Your task to perform on an android device: Open the web browser Image 0: 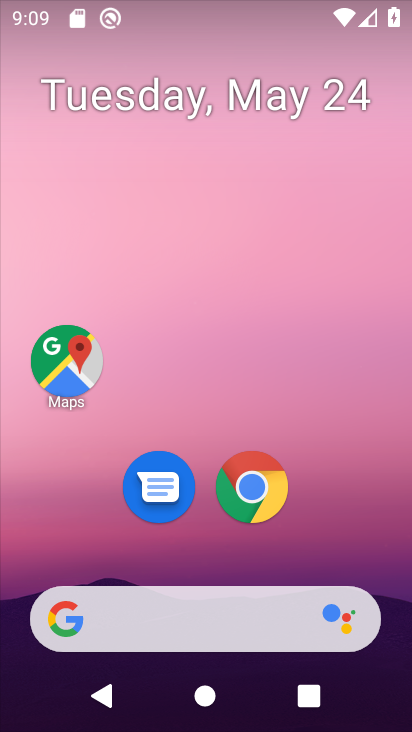
Step 0: press home button
Your task to perform on an android device: Open the web browser Image 1: 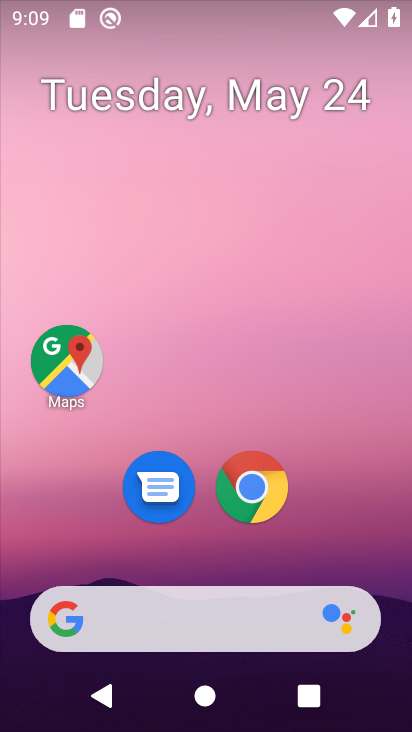
Step 1: click (264, 506)
Your task to perform on an android device: Open the web browser Image 2: 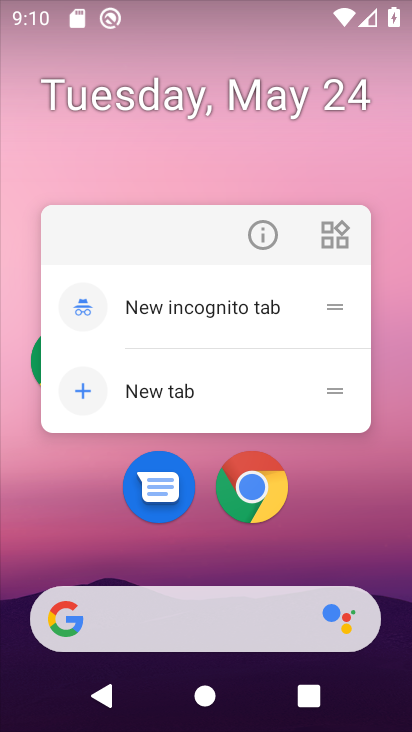
Step 2: click (258, 492)
Your task to perform on an android device: Open the web browser Image 3: 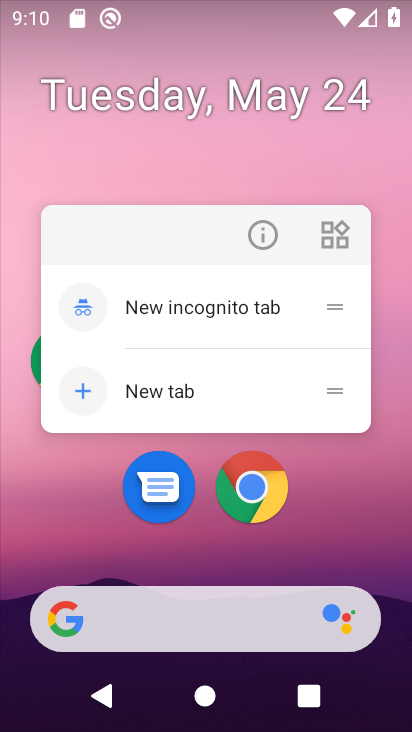
Step 3: click (254, 498)
Your task to perform on an android device: Open the web browser Image 4: 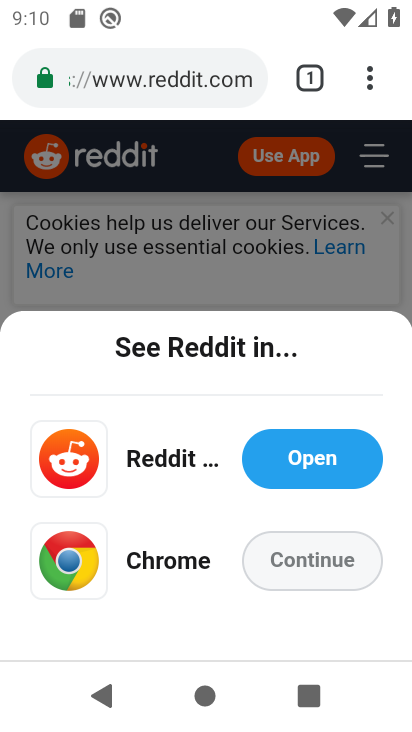
Step 4: task complete